Your task to perform on an android device: Search for flights from Chicago to London Image 0: 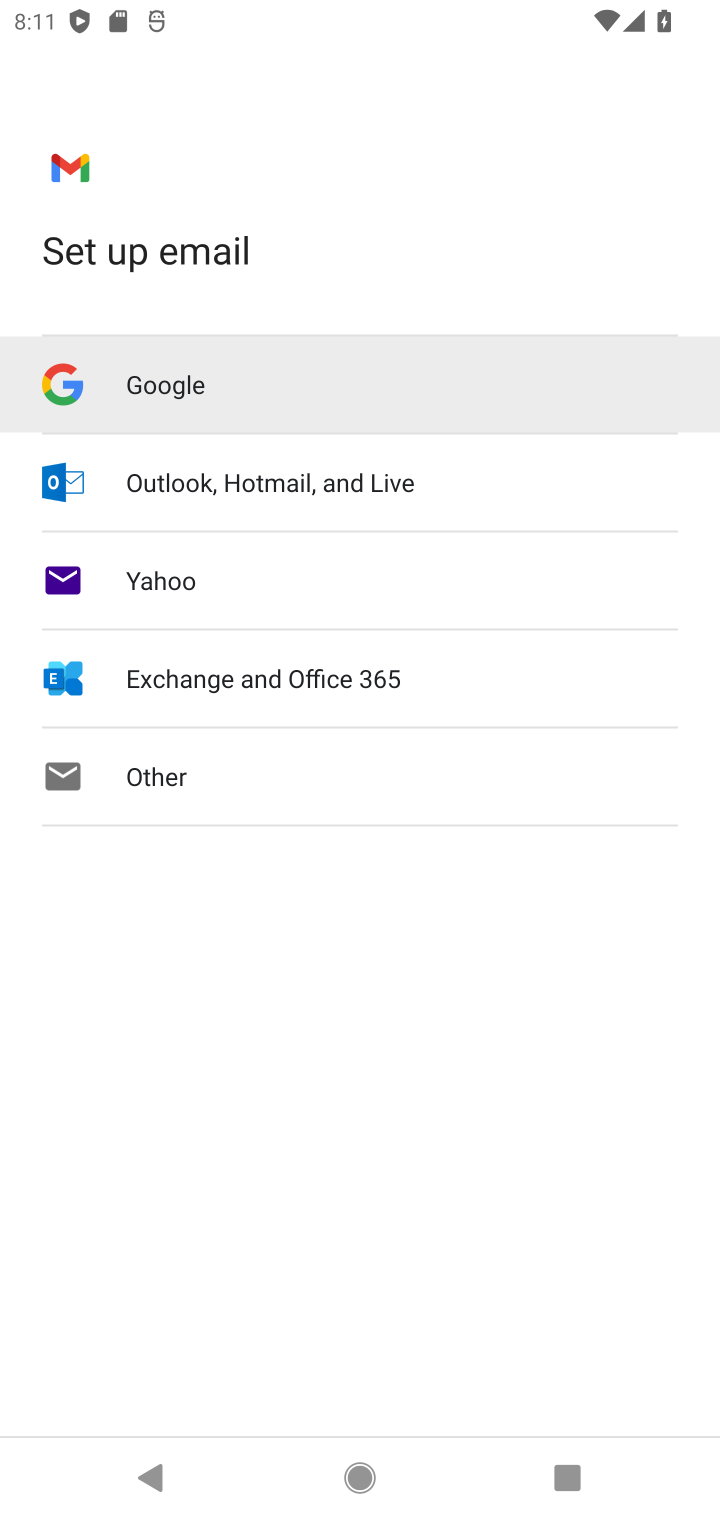
Step 0: press home button
Your task to perform on an android device: Search for flights from Chicago to London Image 1: 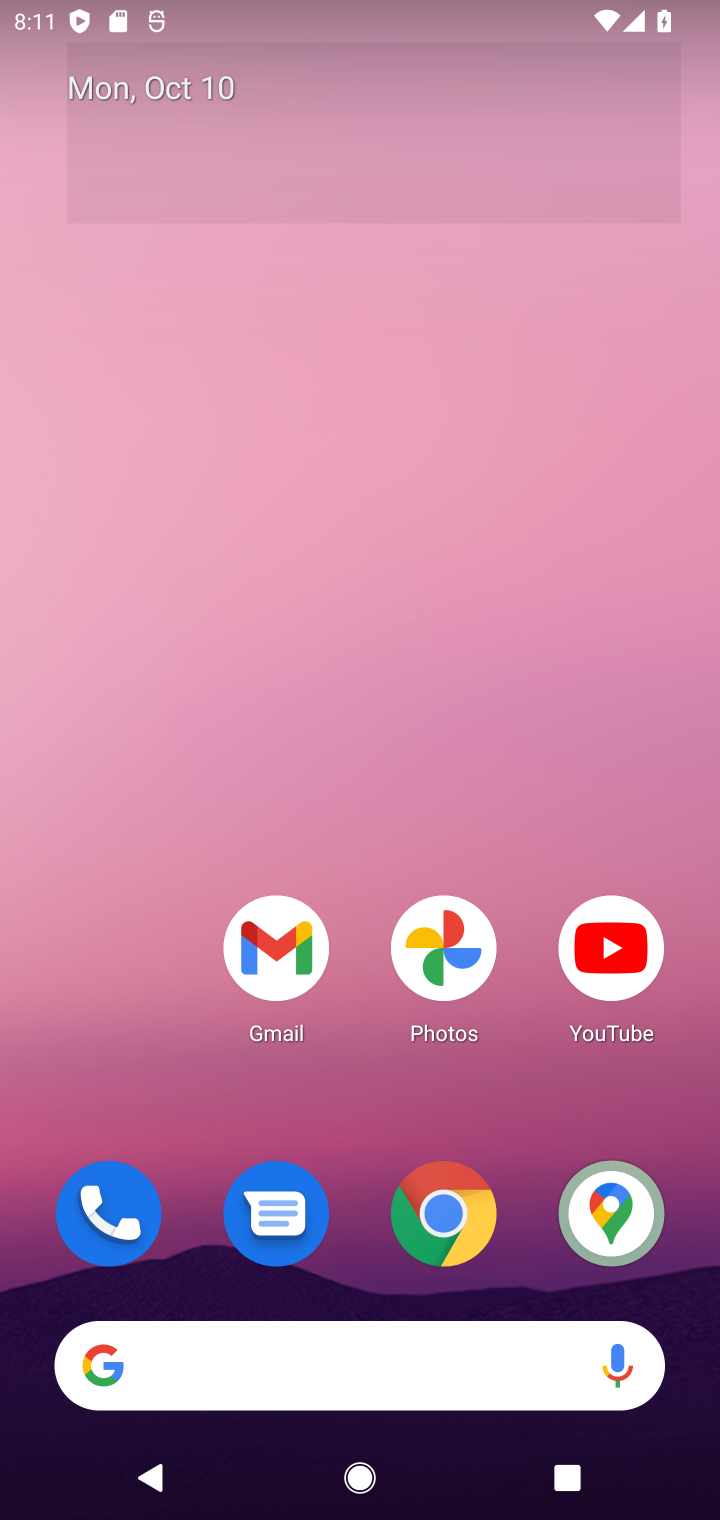
Step 1: click (314, 1359)
Your task to perform on an android device: Search for flights from Chicago to London Image 2: 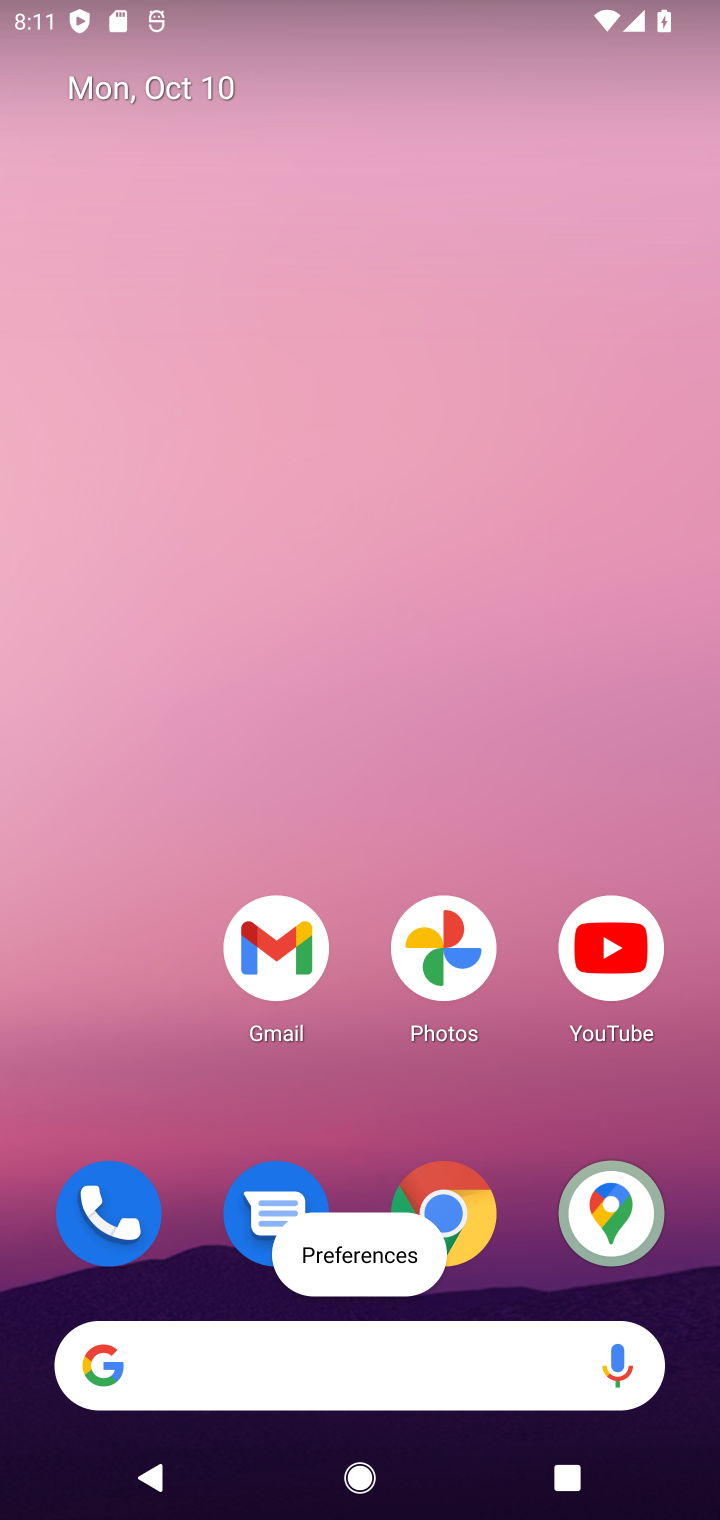
Step 2: click (314, 1359)
Your task to perform on an android device: Search for flights from Chicago to London Image 3: 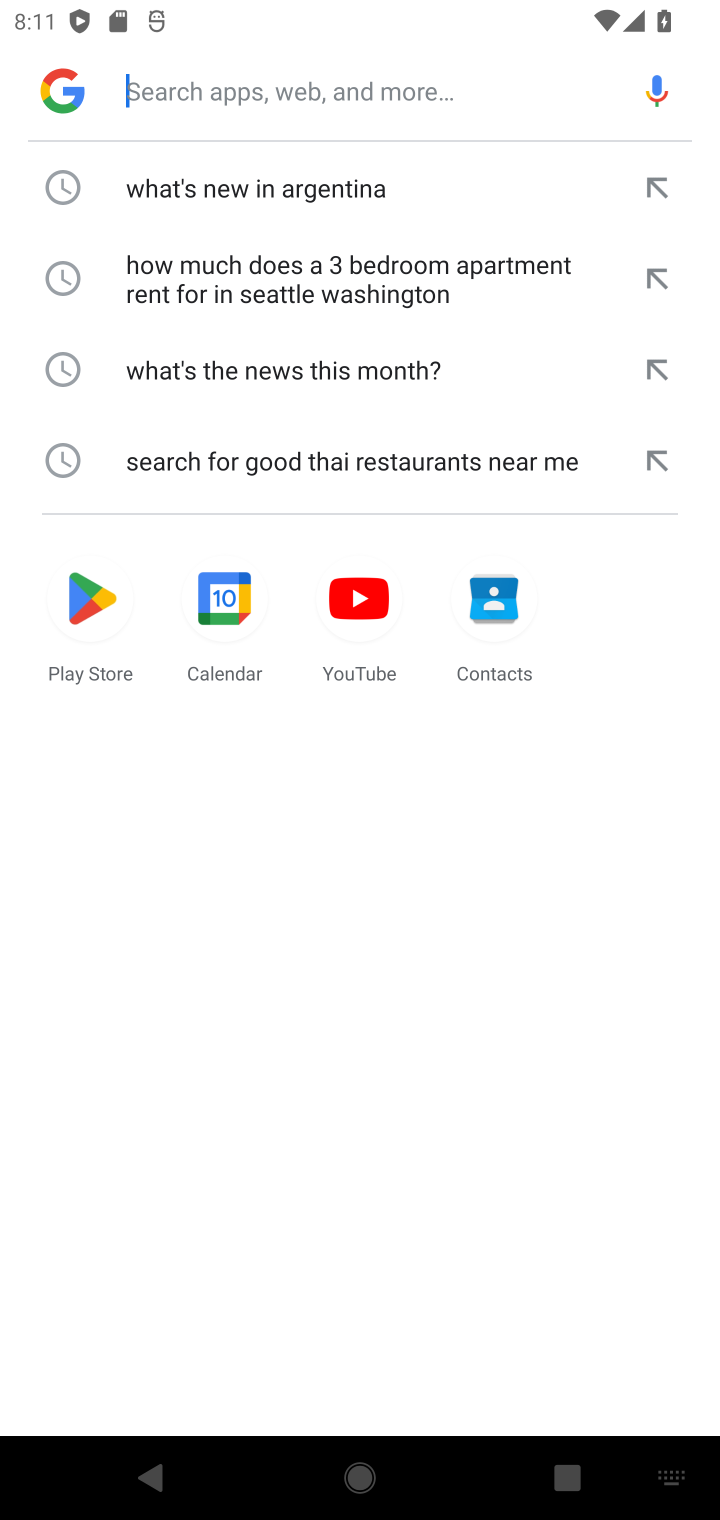
Step 3: type "flights from Chicago to London"
Your task to perform on an android device: Search for flights from Chicago to London Image 4: 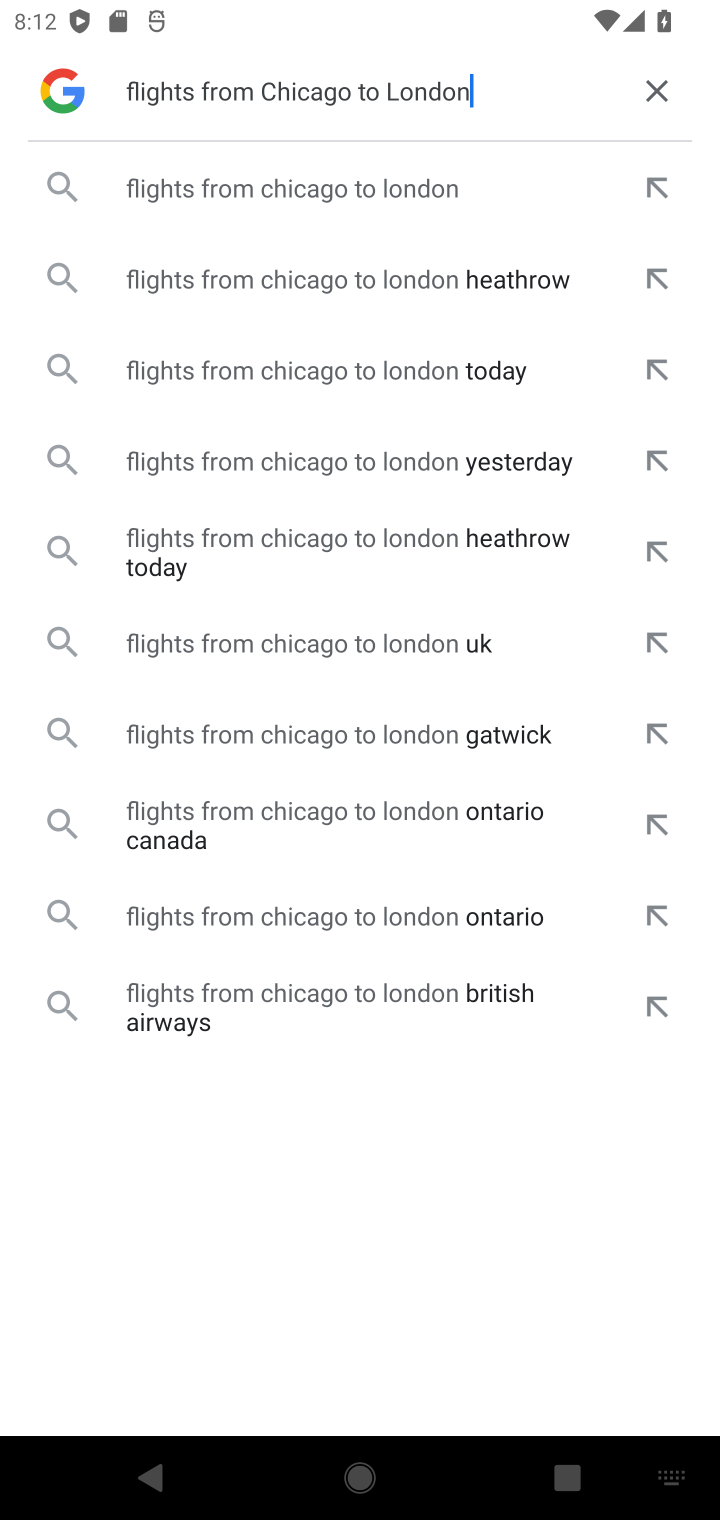
Step 4: click (266, 191)
Your task to perform on an android device: Search for flights from Chicago to London Image 5: 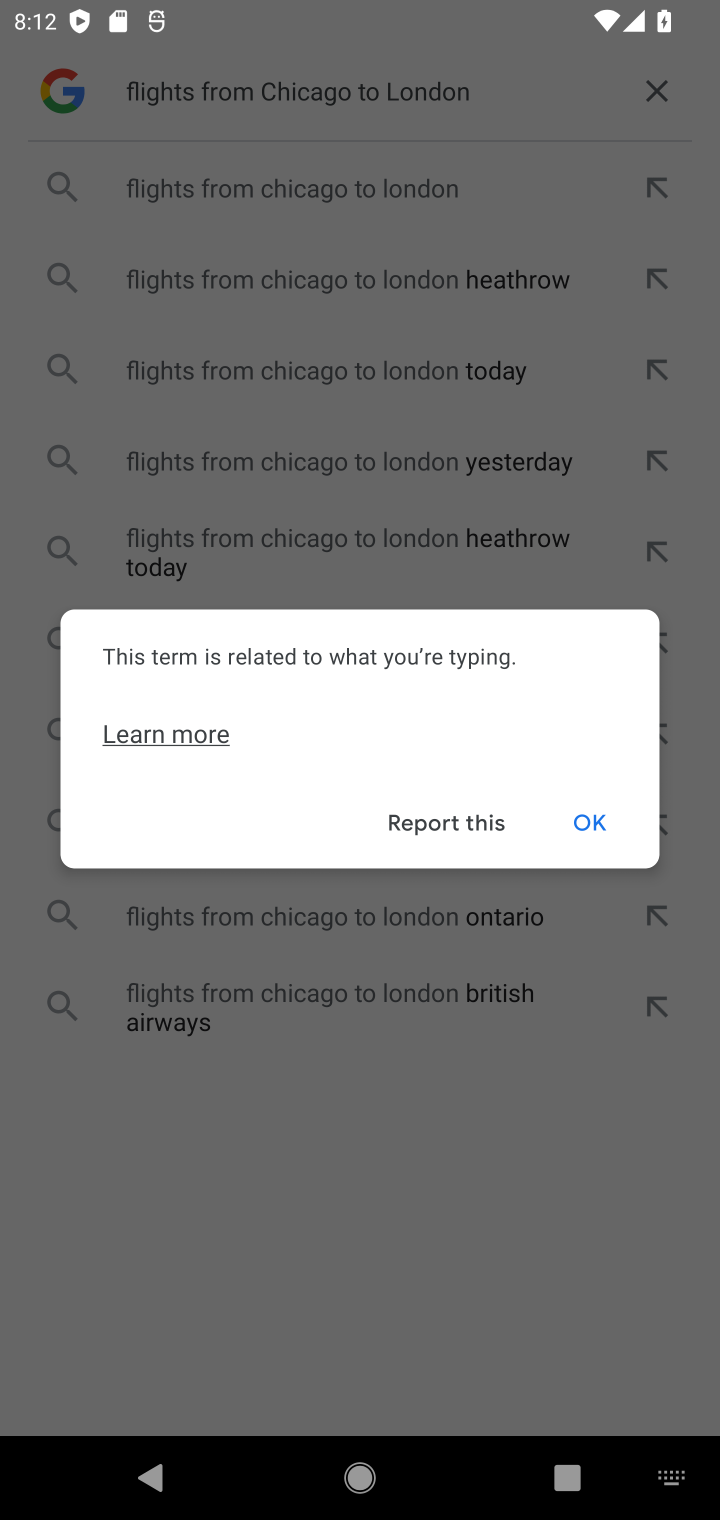
Step 5: click (582, 830)
Your task to perform on an android device: Search for flights from Chicago to London Image 6: 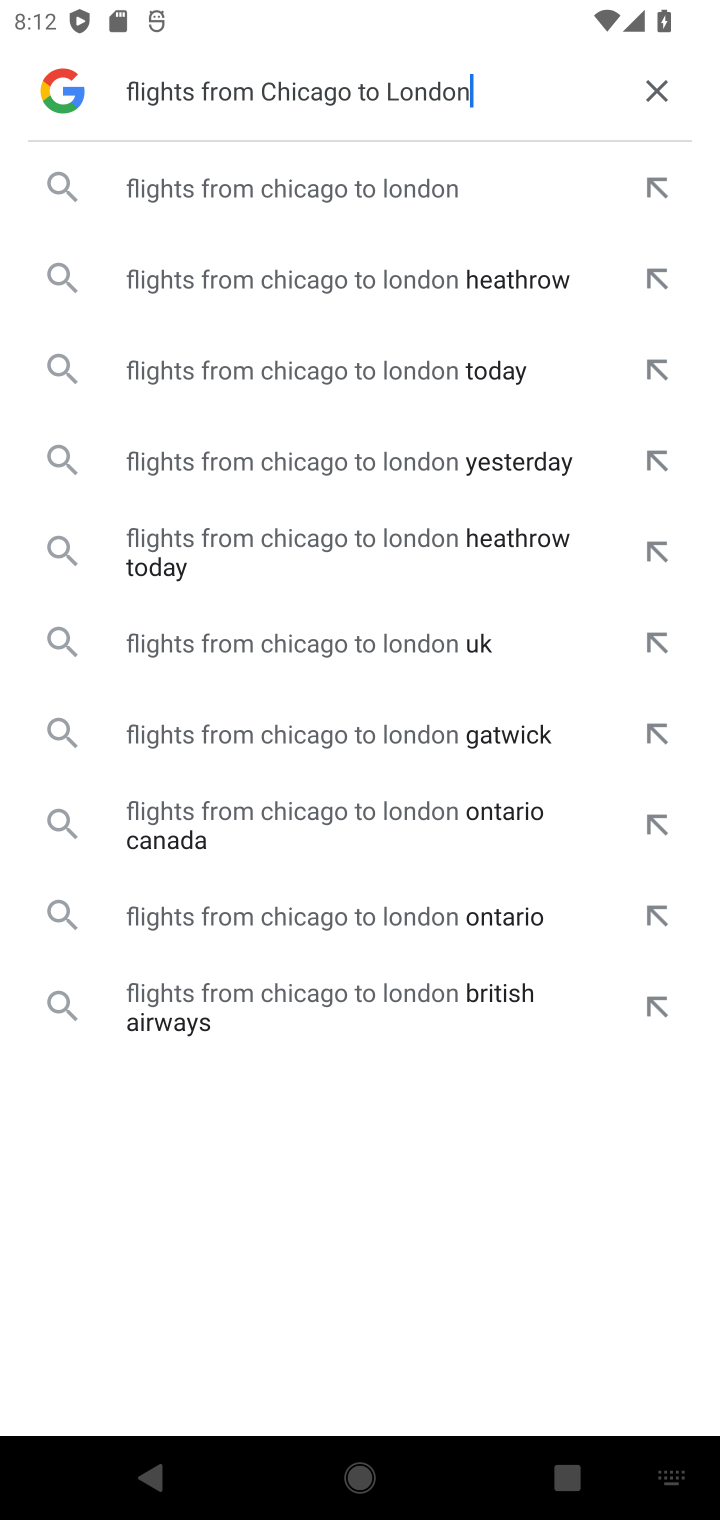
Step 6: click (350, 192)
Your task to perform on an android device: Search for flights from Chicago to London Image 7: 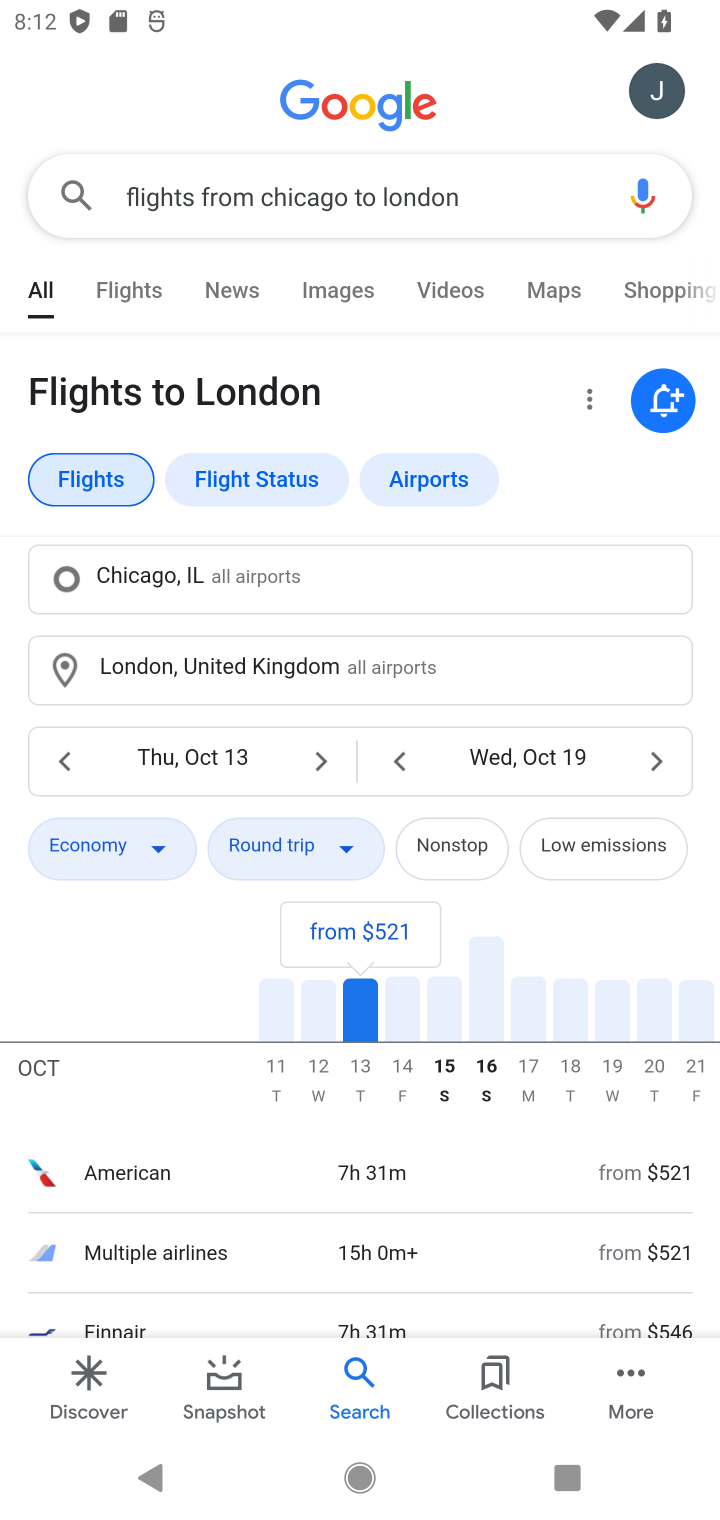
Step 7: task complete